Your task to perform on an android device: Open the phone app and click the voicemail tab. Image 0: 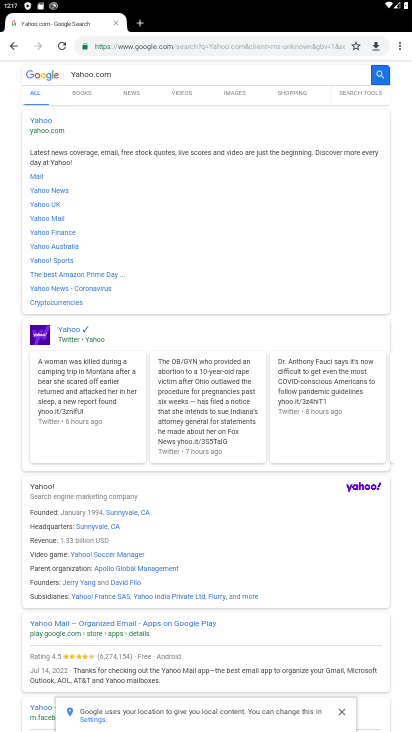
Step 0: press home button
Your task to perform on an android device: Open the phone app and click the voicemail tab. Image 1: 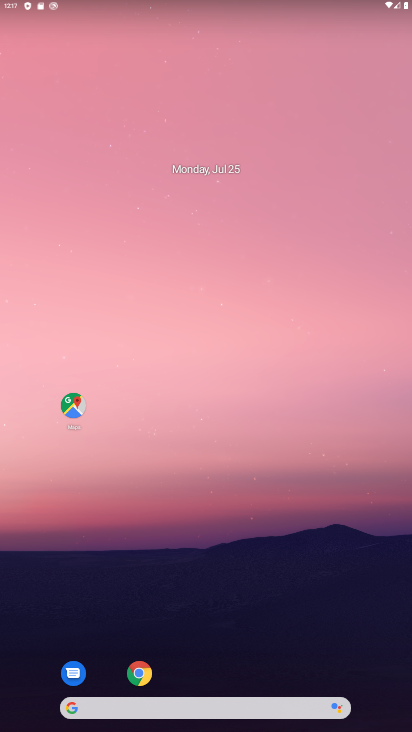
Step 1: drag from (237, 726) to (335, 121)
Your task to perform on an android device: Open the phone app and click the voicemail tab. Image 2: 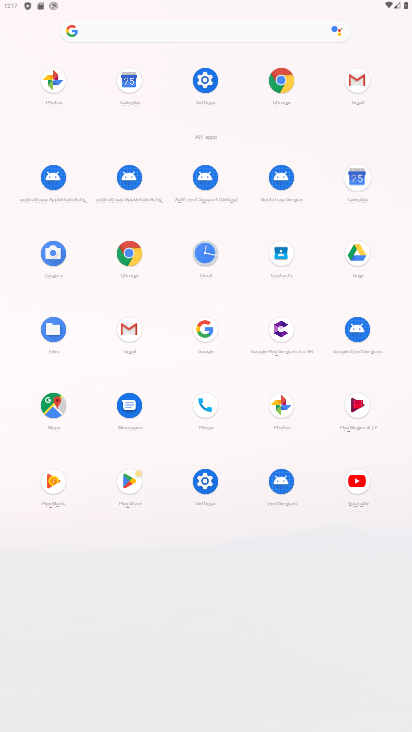
Step 2: click (190, 408)
Your task to perform on an android device: Open the phone app and click the voicemail tab. Image 3: 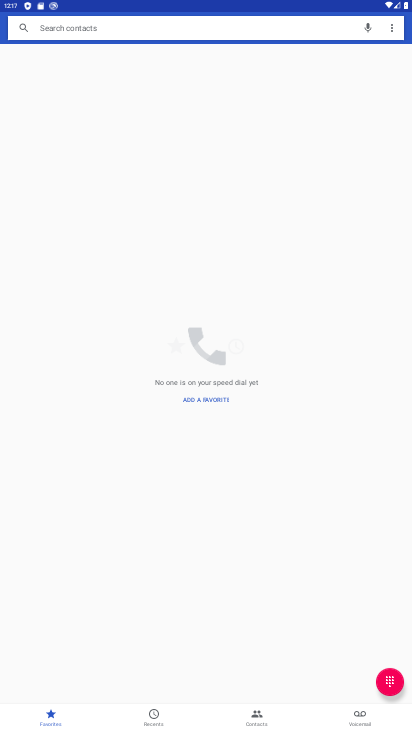
Step 3: click (349, 708)
Your task to perform on an android device: Open the phone app and click the voicemail tab. Image 4: 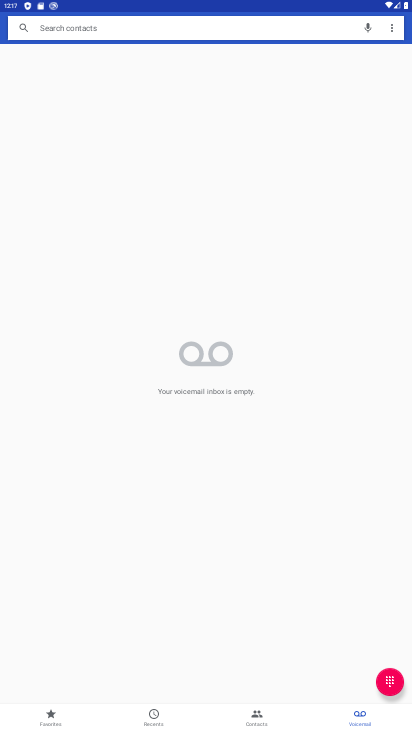
Step 4: task complete